Your task to perform on an android device: Open internet settings Image 0: 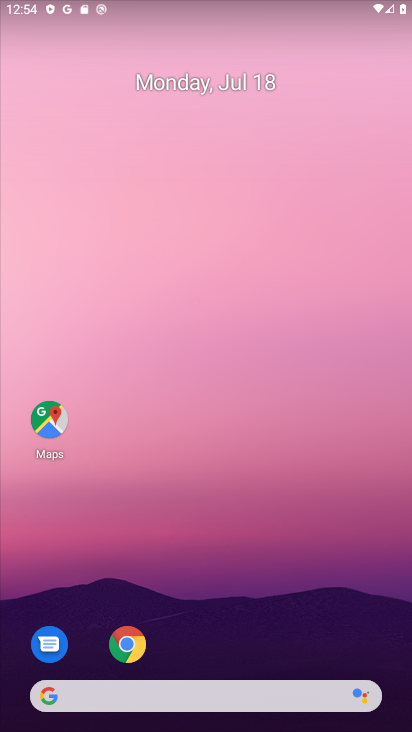
Step 0: drag from (230, 680) to (338, 111)
Your task to perform on an android device: Open internet settings Image 1: 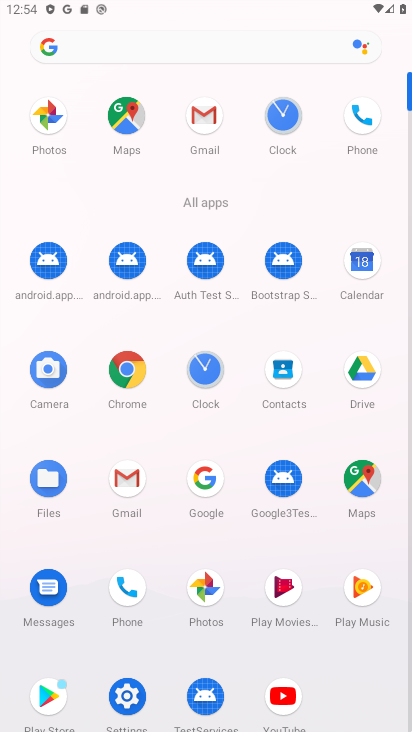
Step 1: click (137, 698)
Your task to perform on an android device: Open internet settings Image 2: 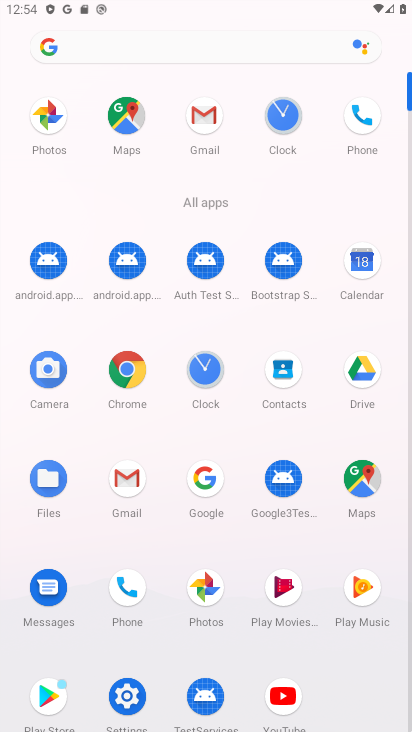
Step 2: click (128, 696)
Your task to perform on an android device: Open internet settings Image 3: 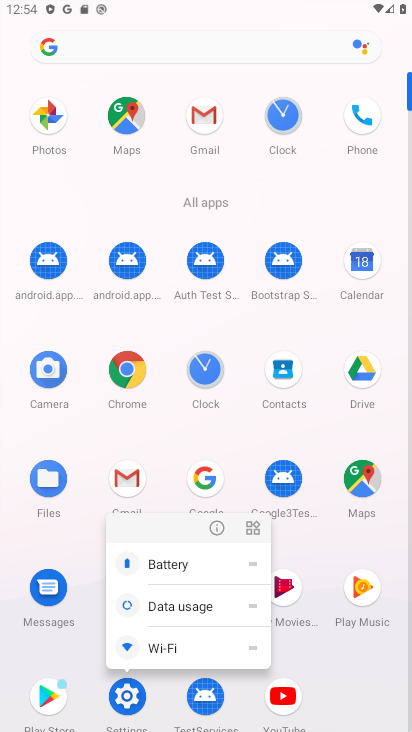
Step 3: click (122, 703)
Your task to perform on an android device: Open internet settings Image 4: 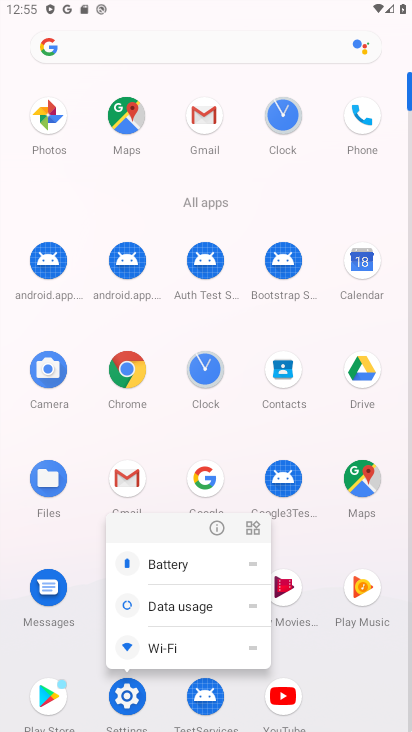
Step 4: click (122, 703)
Your task to perform on an android device: Open internet settings Image 5: 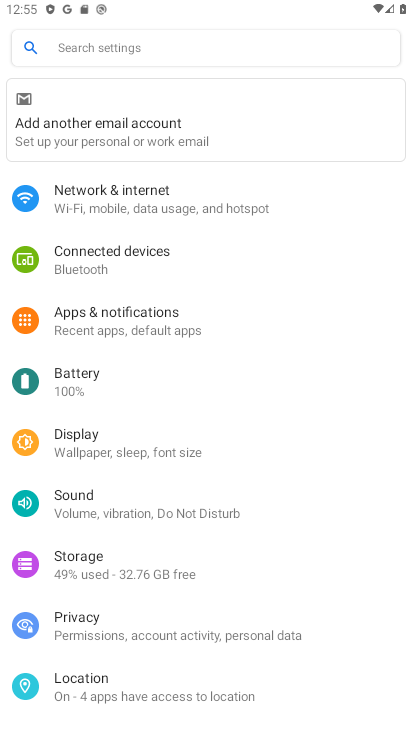
Step 5: click (210, 194)
Your task to perform on an android device: Open internet settings Image 6: 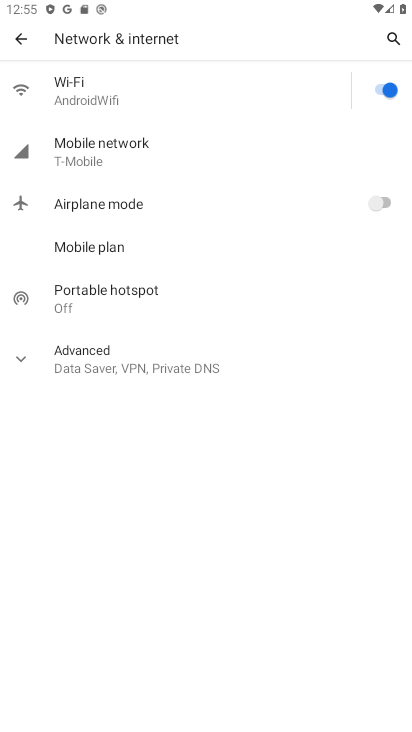
Step 6: click (145, 163)
Your task to perform on an android device: Open internet settings Image 7: 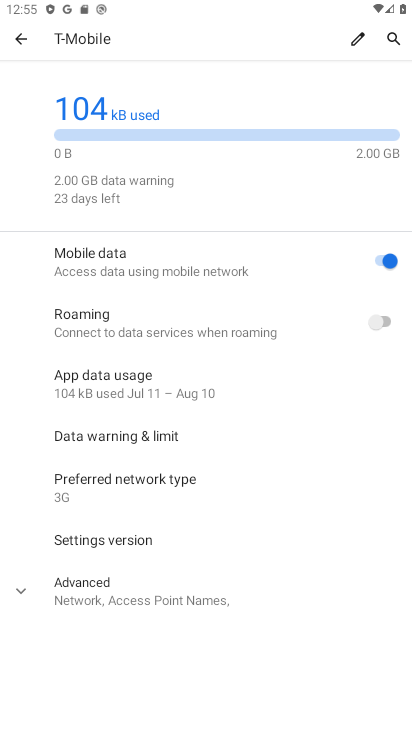
Step 7: task complete